Your task to perform on an android device: turn smart compose on in the gmail app Image 0: 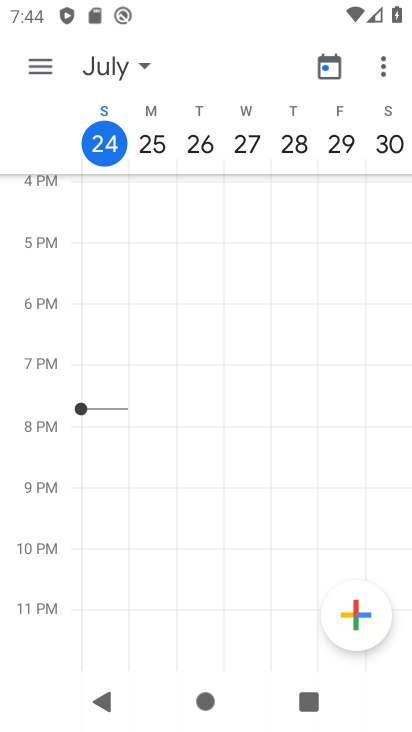
Step 0: press home button
Your task to perform on an android device: turn smart compose on in the gmail app Image 1: 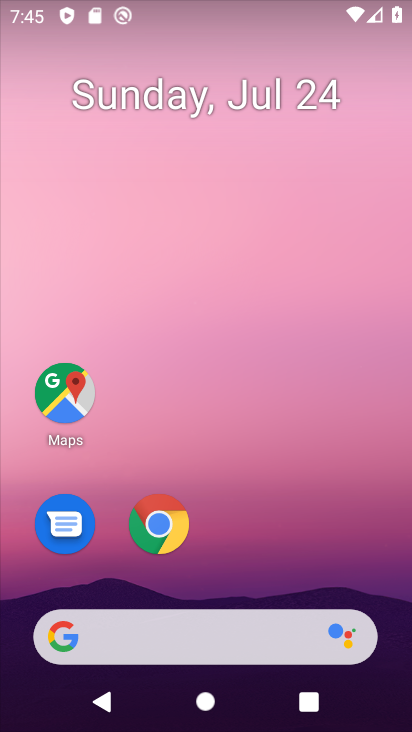
Step 1: drag from (264, 558) to (298, 0)
Your task to perform on an android device: turn smart compose on in the gmail app Image 2: 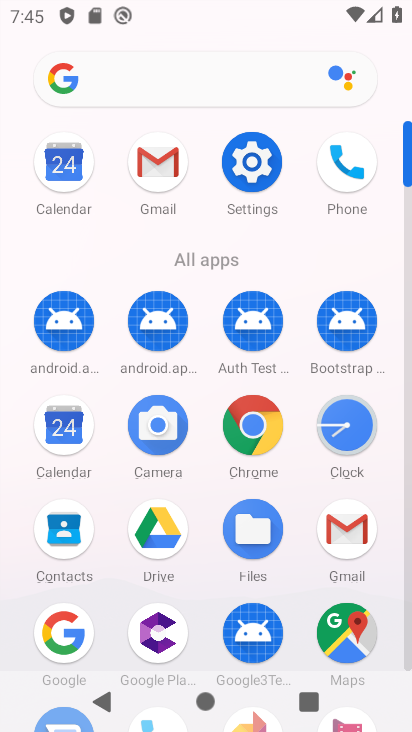
Step 2: click (154, 160)
Your task to perform on an android device: turn smart compose on in the gmail app Image 3: 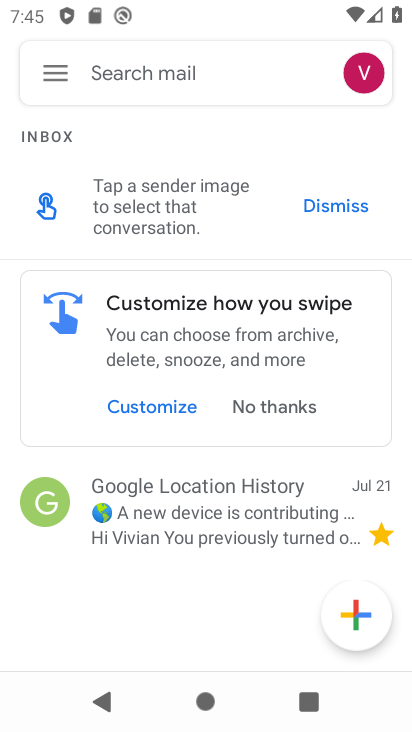
Step 3: click (59, 73)
Your task to perform on an android device: turn smart compose on in the gmail app Image 4: 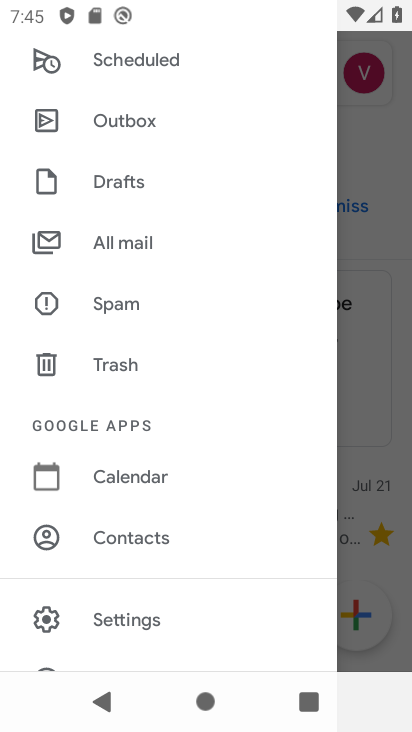
Step 4: click (126, 610)
Your task to perform on an android device: turn smart compose on in the gmail app Image 5: 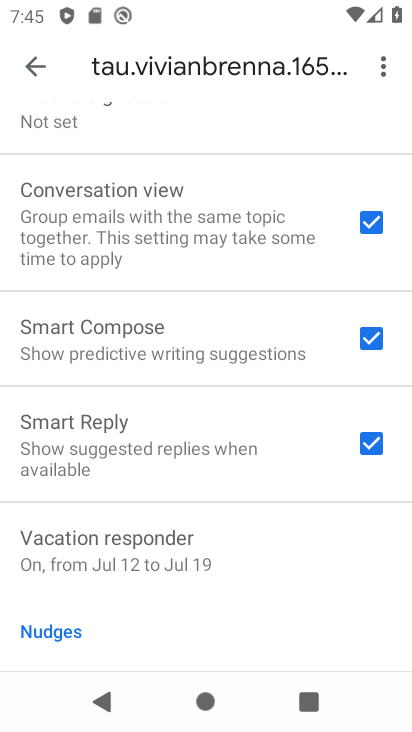
Step 5: task complete